Your task to perform on an android device: set the stopwatch Image 0: 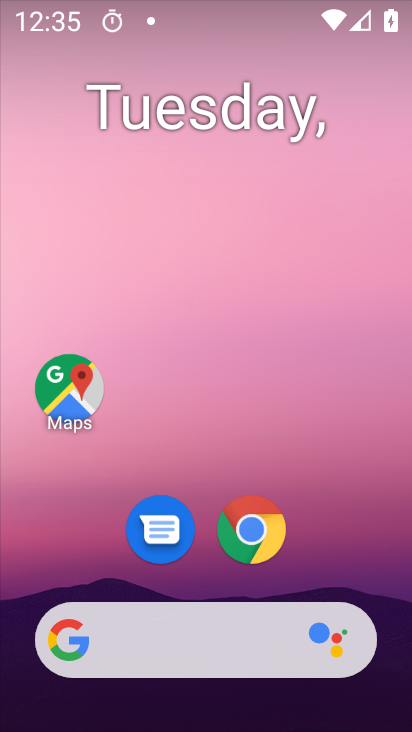
Step 0: drag from (341, 551) to (225, 57)
Your task to perform on an android device: set the stopwatch Image 1: 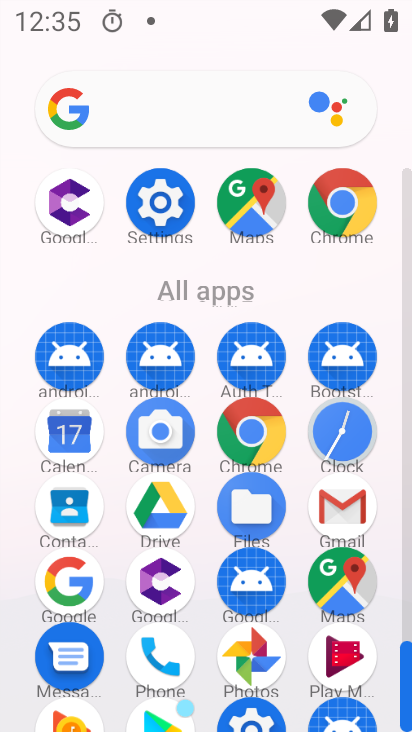
Step 1: click (357, 436)
Your task to perform on an android device: set the stopwatch Image 2: 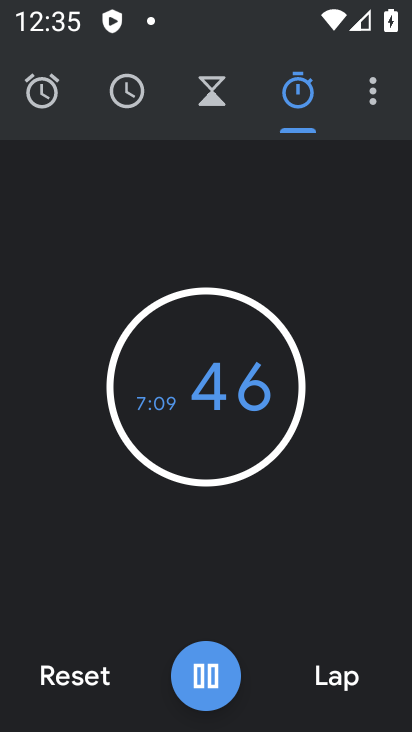
Step 2: task complete